Your task to perform on an android device: Is it going to rain tomorrow? Image 0: 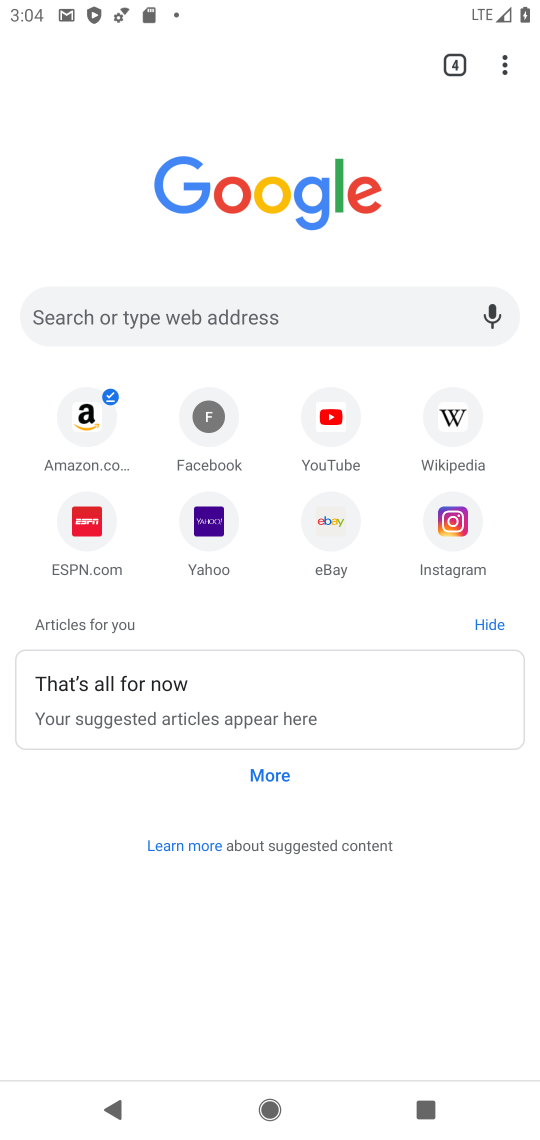
Step 0: press home button
Your task to perform on an android device: Is it going to rain tomorrow? Image 1: 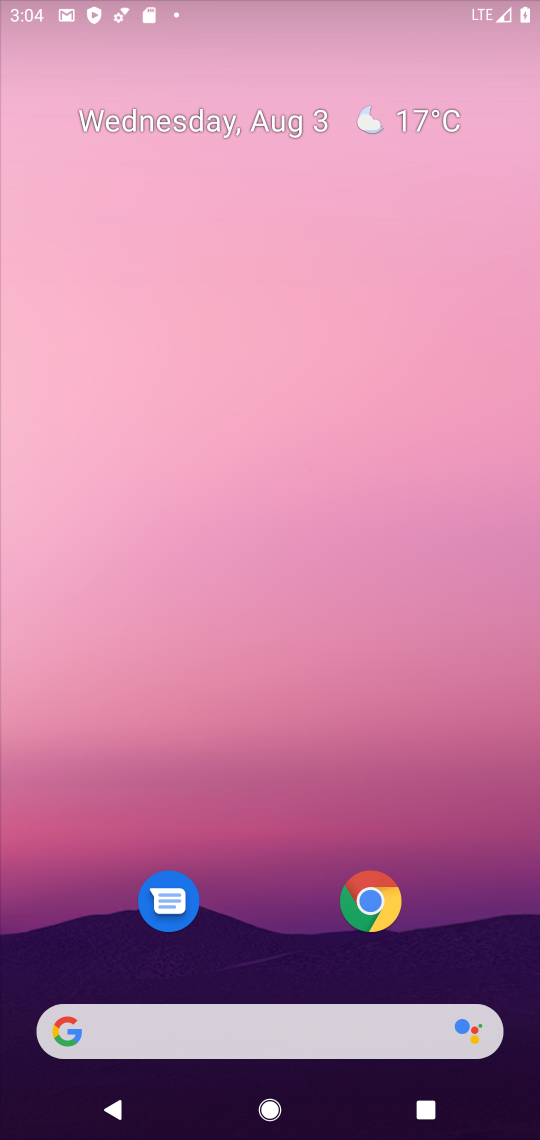
Step 1: drag from (231, 1038) to (278, 342)
Your task to perform on an android device: Is it going to rain tomorrow? Image 2: 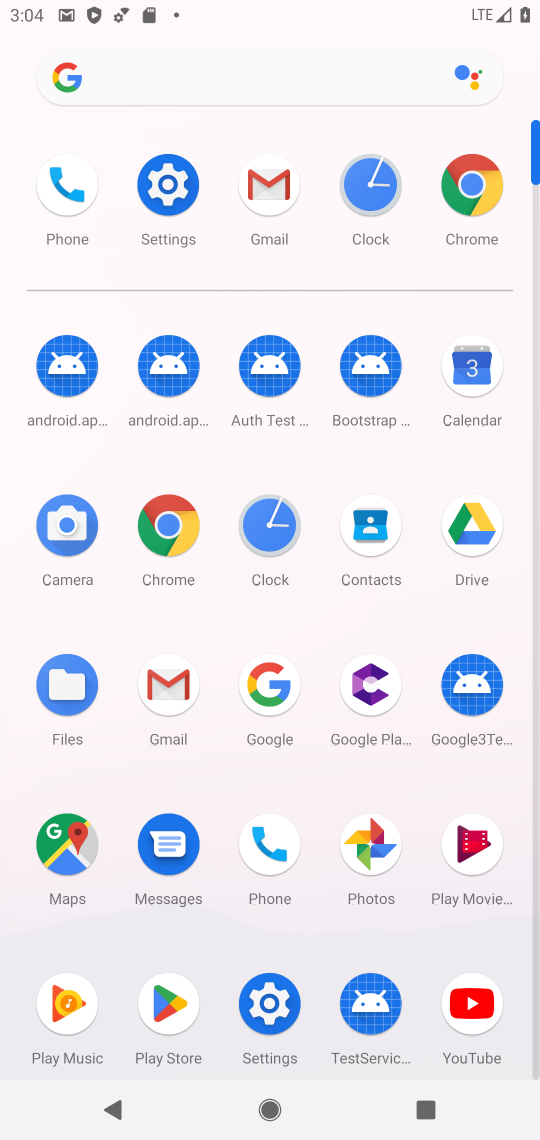
Step 2: click (168, 514)
Your task to perform on an android device: Is it going to rain tomorrow? Image 3: 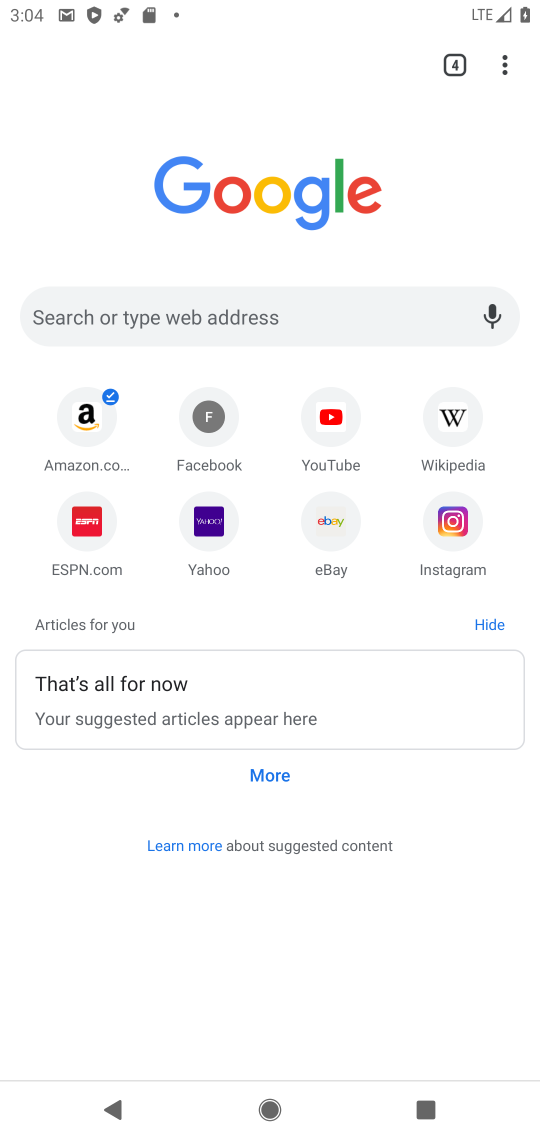
Step 3: click (255, 297)
Your task to perform on an android device: Is it going to rain tomorrow? Image 4: 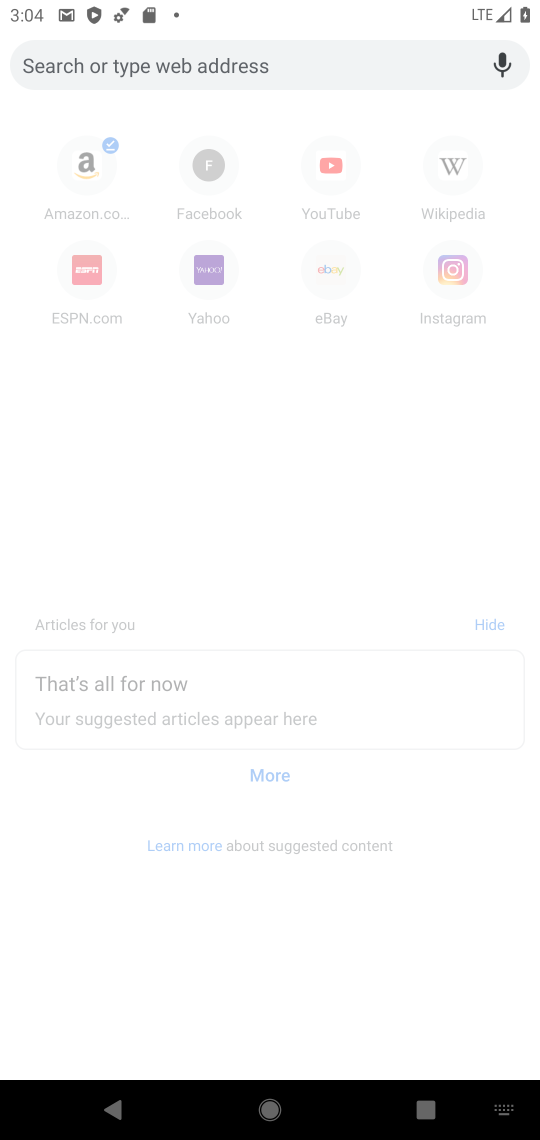
Step 4: type "Is it going to rain tomorrow? "
Your task to perform on an android device: Is it going to rain tomorrow? Image 5: 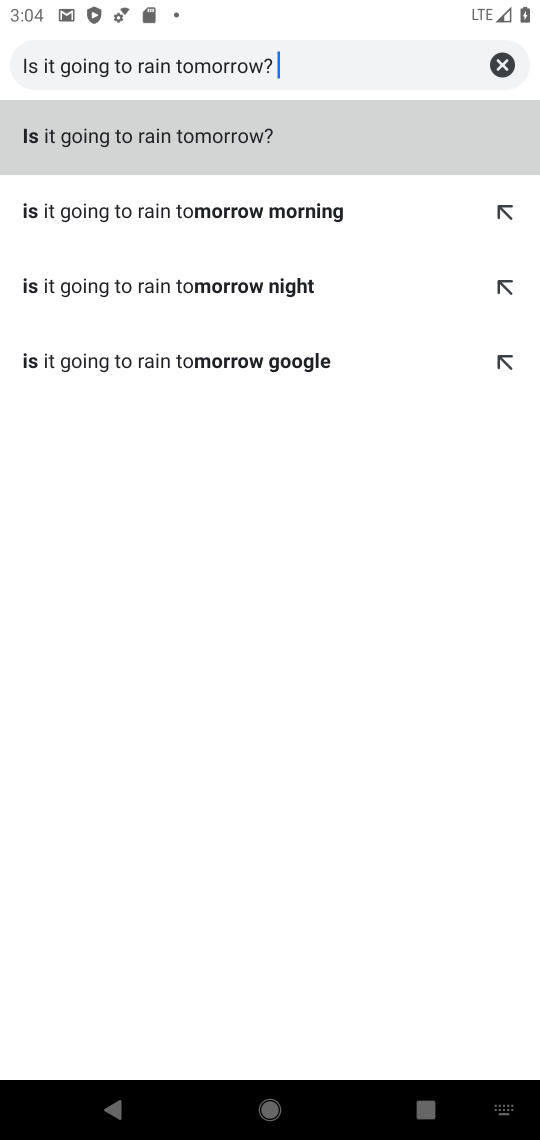
Step 5: click (382, 137)
Your task to perform on an android device: Is it going to rain tomorrow? Image 6: 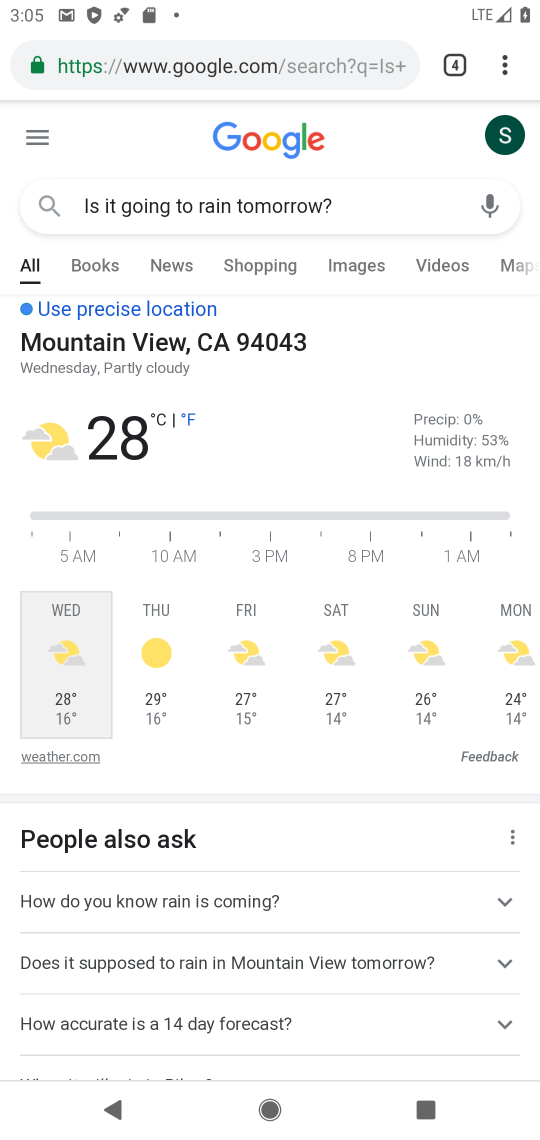
Step 6: task complete